Your task to perform on an android device: see sites visited before in the chrome app Image 0: 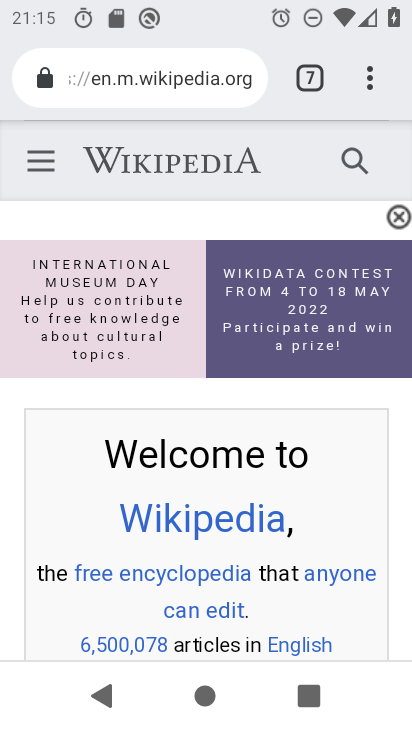
Step 0: press home button
Your task to perform on an android device: see sites visited before in the chrome app Image 1: 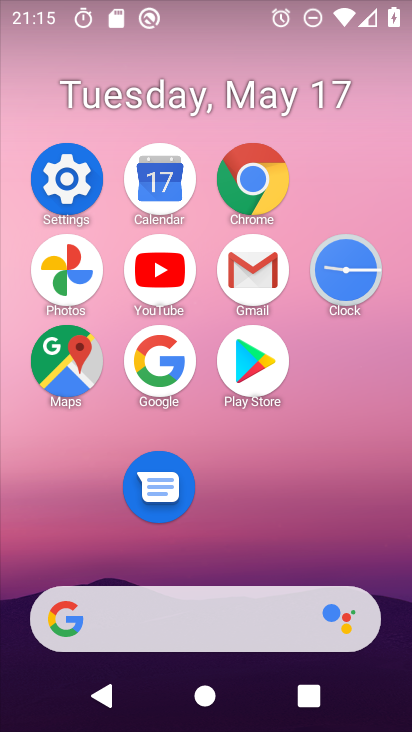
Step 1: click (277, 191)
Your task to perform on an android device: see sites visited before in the chrome app Image 2: 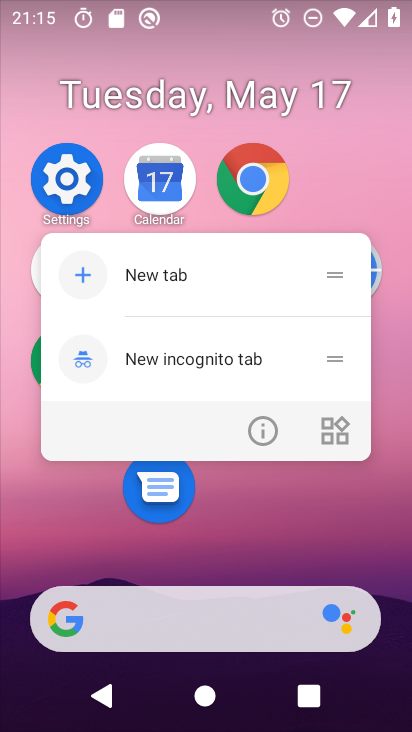
Step 2: click (277, 191)
Your task to perform on an android device: see sites visited before in the chrome app Image 3: 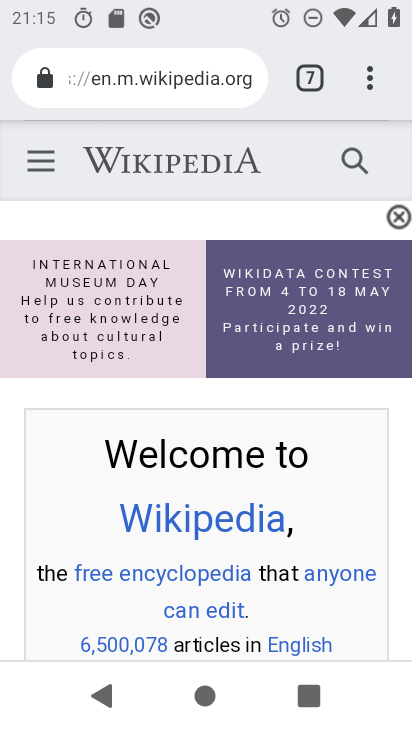
Step 3: click (377, 83)
Your task to perform on an android device: see sites visited before in the chrome app Image 4: 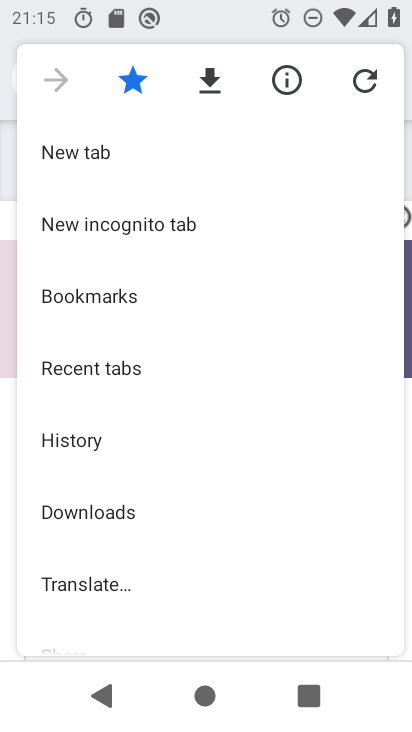
Step 4: click (145, 365)
Your task to perform on an android device: see sites visited before in the chrome app Image 5: 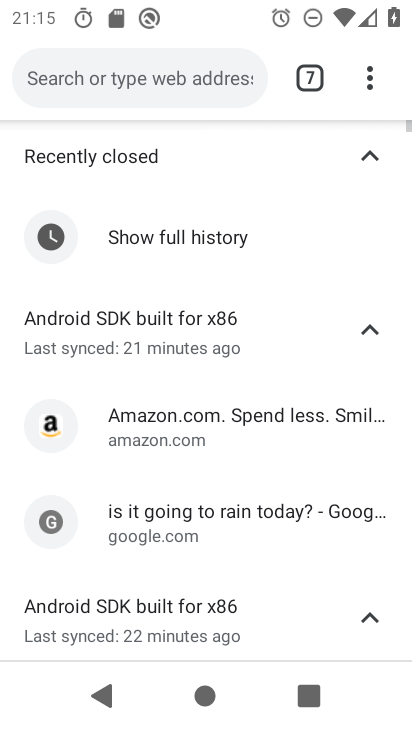
Step 5: task complete